Your task to perform on an android device: turn off wifi Image 0: 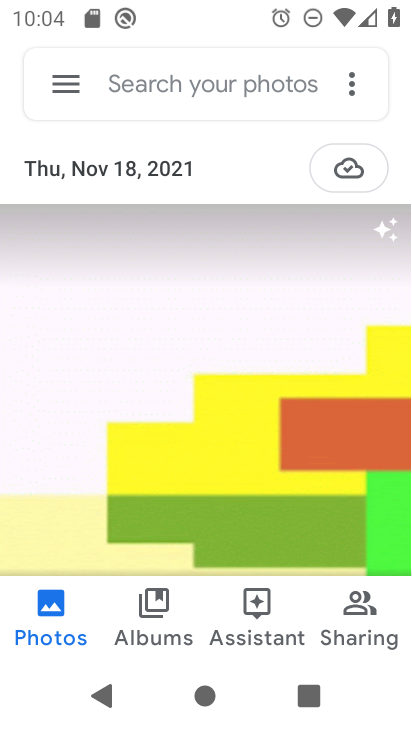
Step 0: press home button
Your task to perform on an android device: turn off wifi Image 1: 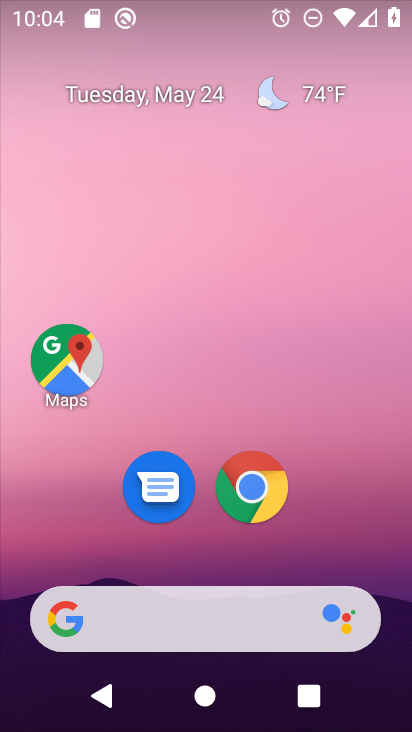
Step 1: drag from (359, 587) to (288, 21)
Your task to perform on an android device: turn off wifi Image 2: 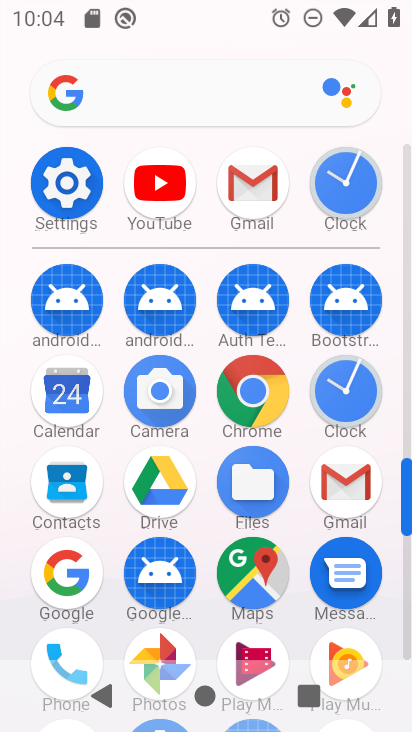
Step 2: click (59, 185)
Your task to perform on an android device: turn off wifi Image 3: 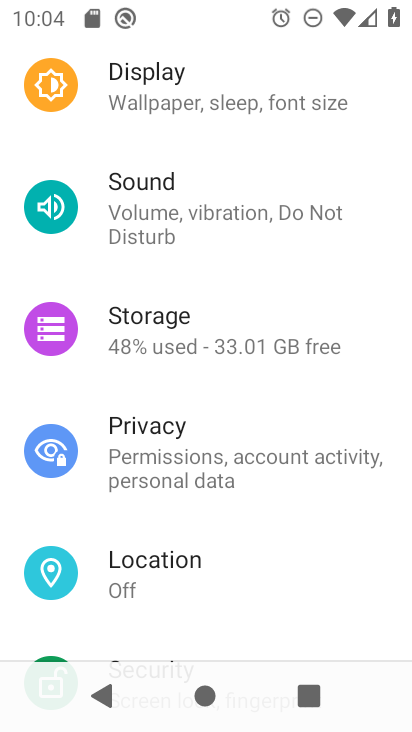
Step 3: drag from (271, 195) to (284, 619)
Your task to perform on an android device: turn off wifi Image 4: 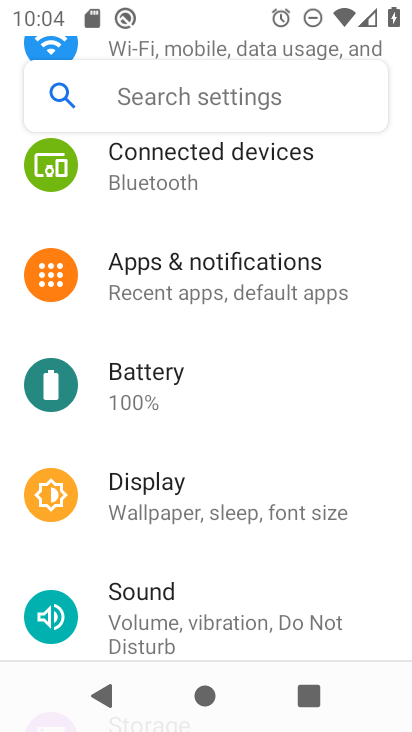
Step 4: drag from (167, 242) to (232, 617)
Your task to perform on an android device: turn off wifi Image 5: 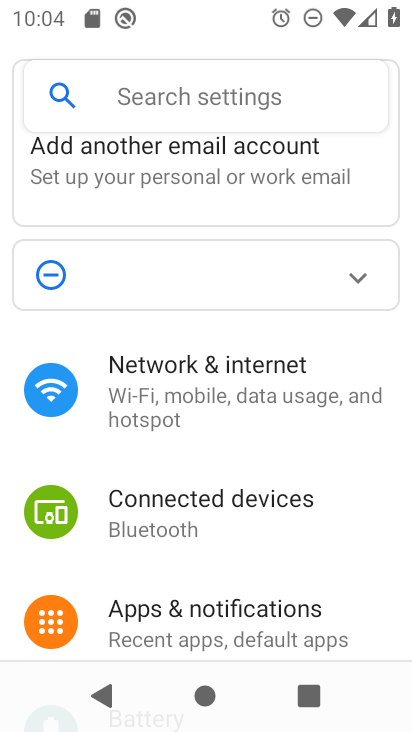
Step 5: click (162, 392)
Your task to perform on an android device: turn off wifi Image 6: 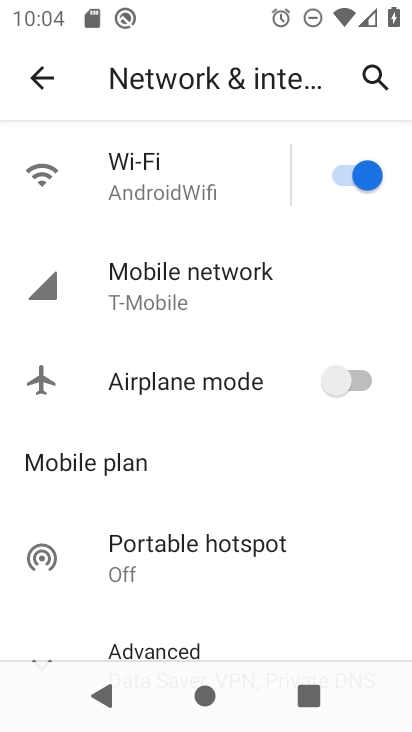
Step 6: click (368, 188)
Your task to perform on an android device: turn off wifi Image 7: 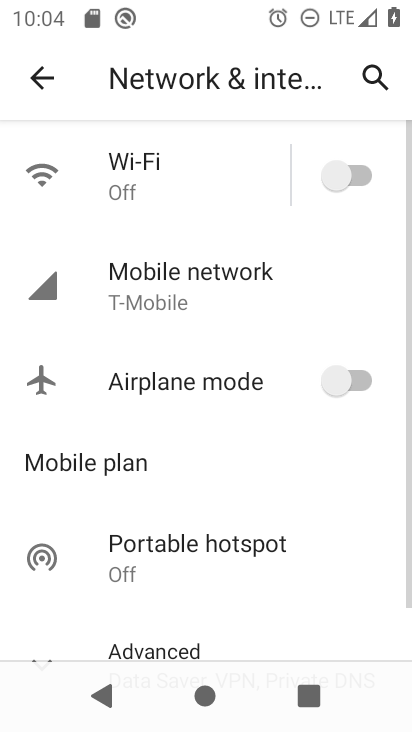
Step 7: task complete